Your task to perform on an android device: toggle priority inbox in the gmail app Image 0: 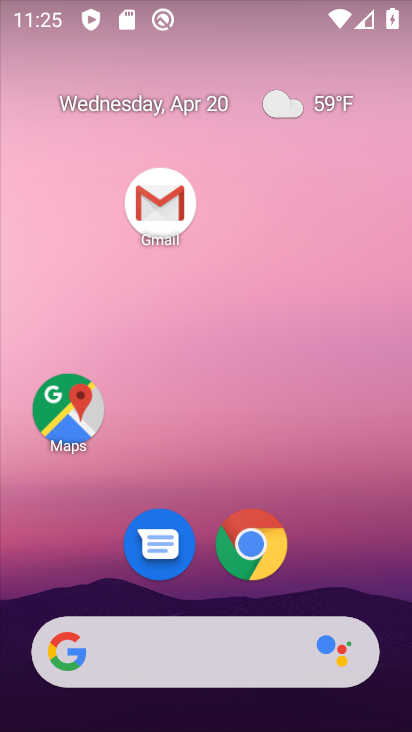
Step 0: drag from (260, 542) to (332, 110)
Your task to perform on an android device: toggle priority inbox in the gmail app Image 1: 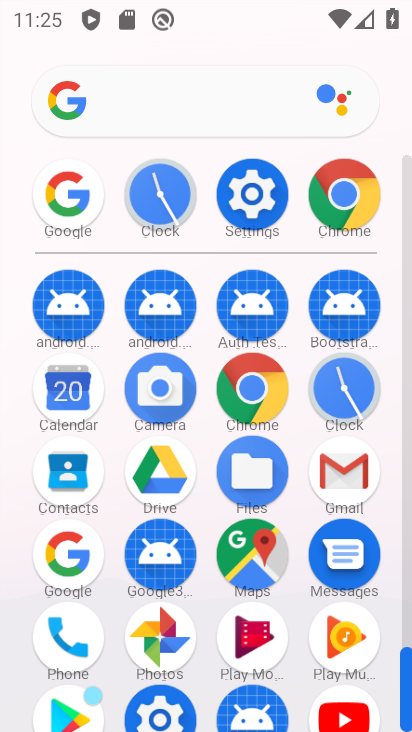
Step 1: click (336, 481)
Your task to perform on an android device: toggle priority inbox in the gmail app Image 2: 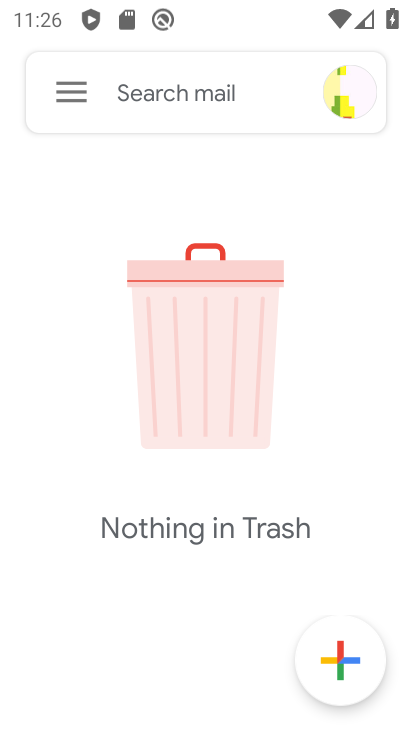
Step 2: click (61, 100)
Your task to perform on an android device: toggle priority inbox in the gmail app Image 3: 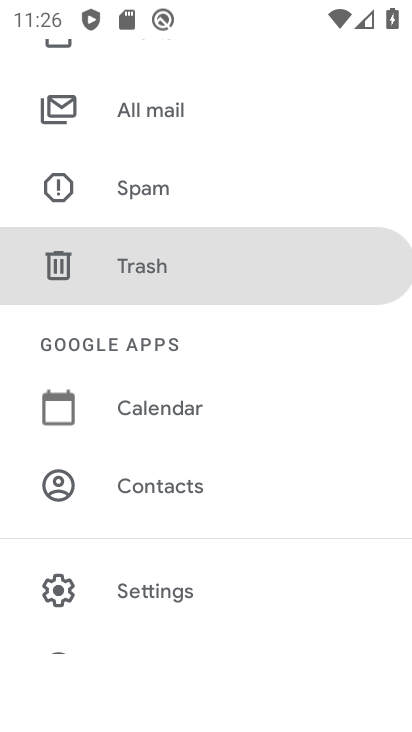
Step 3: drag from (317, 144) to (278, 625)
Your task to perform on an android device: toggle priority inbox in the gmail app Image 4: 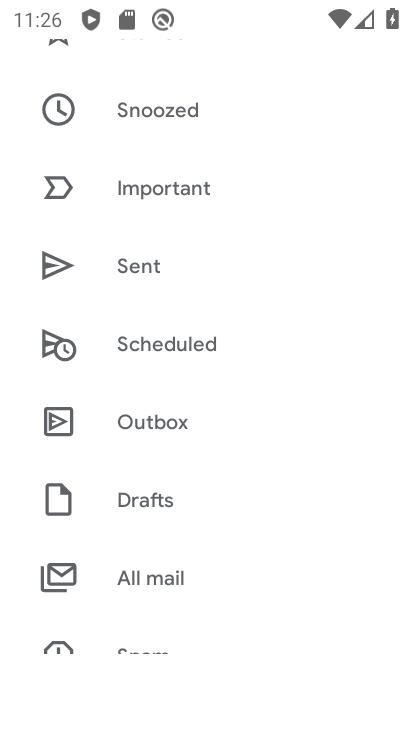
Step 4: drag from (207, 508) to (292, 90)
Your task to perform on an android device: toggle priority inbox in the gmail app Image 5: 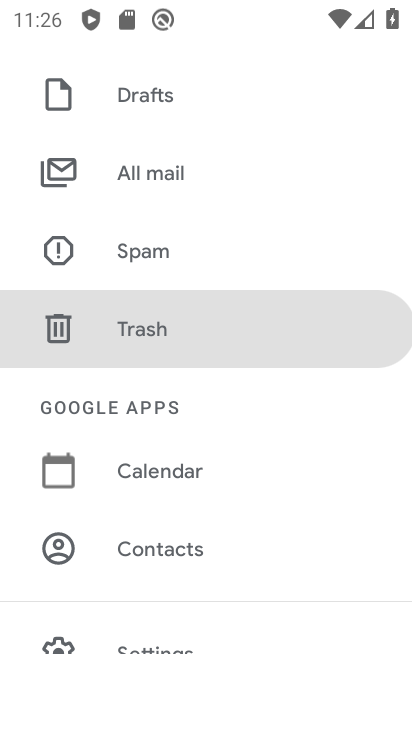
Step 5: drag from (236, 631) to (238, 341)
Your task to perform on an android device: toggle priority inbox in the gmail app Image 6: 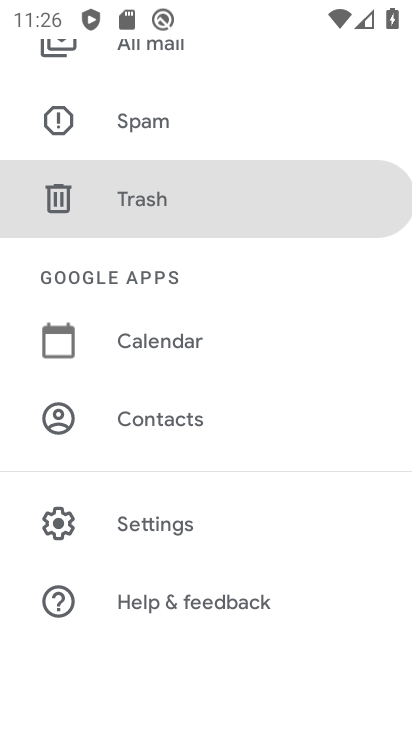
Step 6: click (178, 531)
Your task to perform on an android device: toggle priority inbox in the gmail app Image 7: 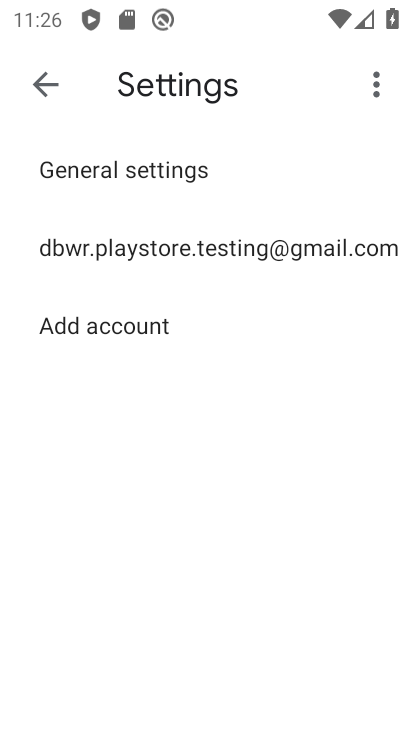
Step 7: click (161, 239)
Your task to perform on an android device: toggle priority inbox in the gmail app Image 8: 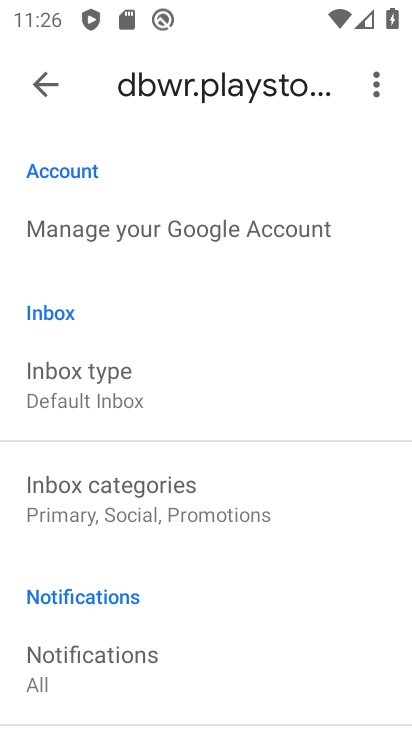
Step 8: click (104, 391)
Your task to perform on an android device: toggle priority inbox in the gmail app Image 9: 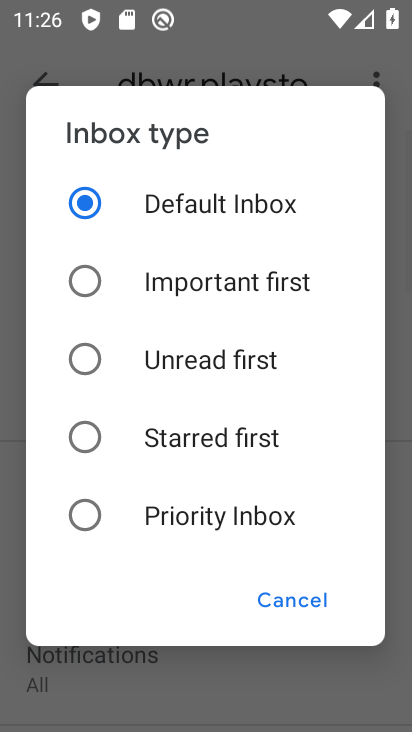
Step 9: click (118, 511)
Your task to perform on an android device: toggle priority inbox in the gmail app Image 10: 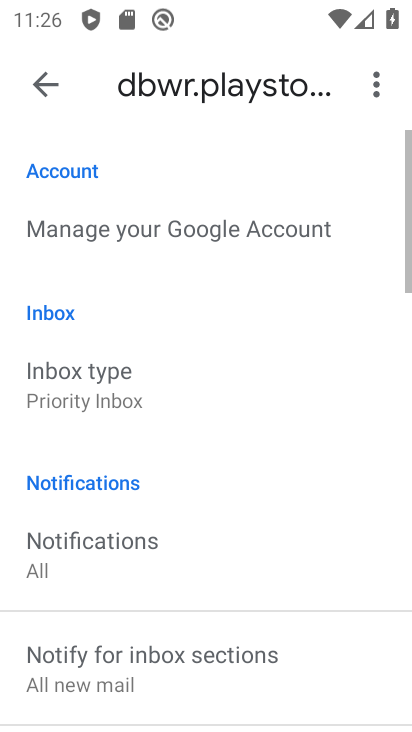
Step 10: task complete